Your task to perform on an android device: Set the phone to "Do not disturb". Image 0: 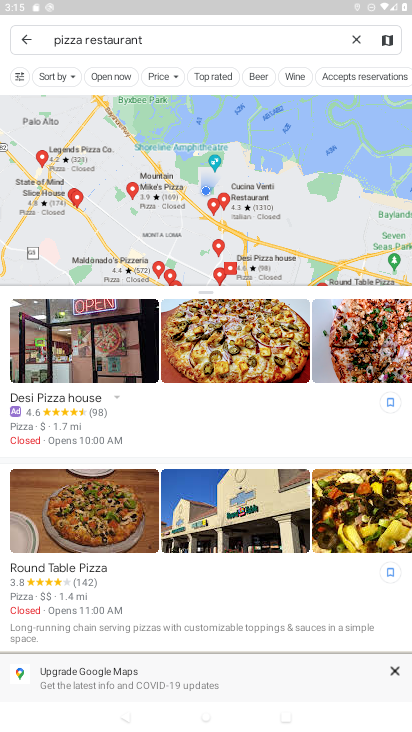
Step 0: press home button
Your task to perform on an android device: Set the phone to "Do not disturb". Image 1: 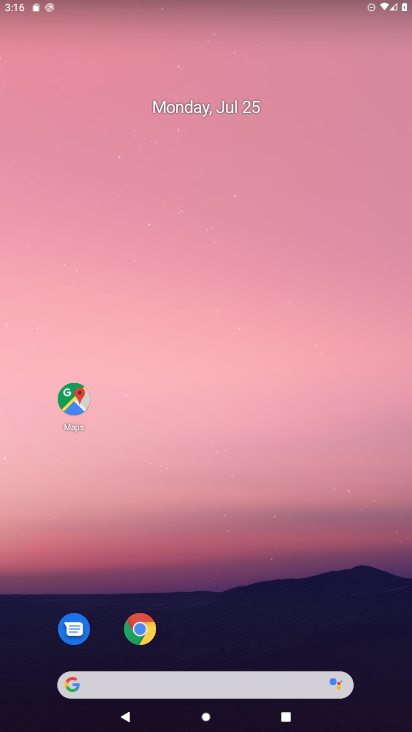
Step 1: drag from (281, 627) to (213, 169)
Your task to perform on an android device: Set the phone to "Do not disturb". Image 2: 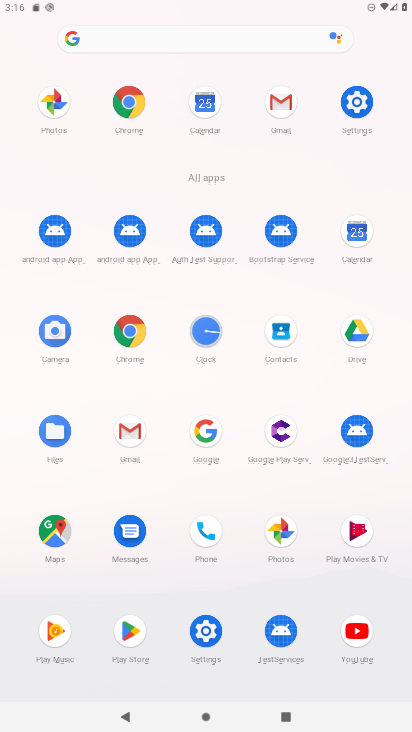
Step 2: click (360, 101)
Your task to perform on an android device: Set the phone to "Do not disturb". Image 3: 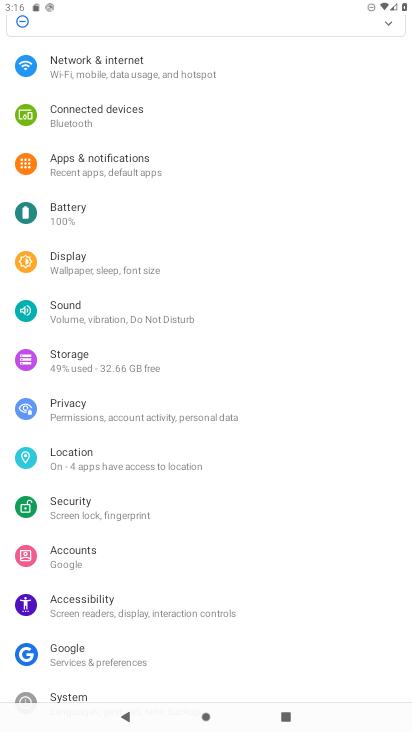
Step 3: click (159, 307)
Your task to perform on an android device: Set the phone to "Do not disturb". Image 4: 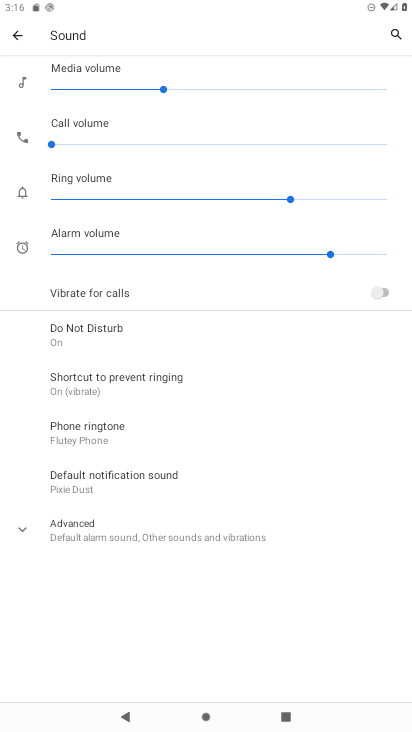
Step 4: click (122, 329)
Your task to perform on an android device: Set the phone to "Do not disturb". Image 5: 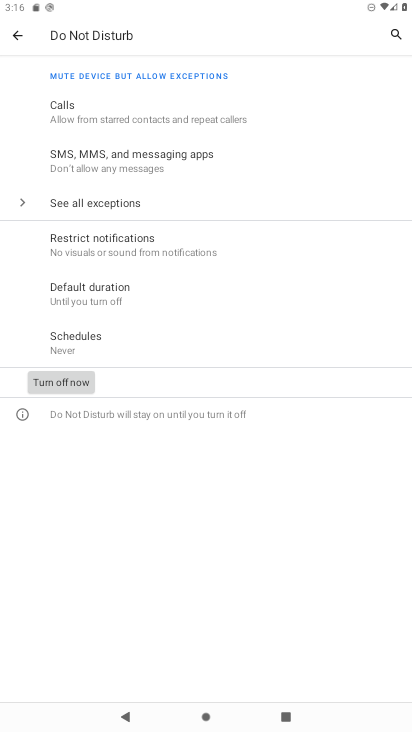
Step 5: task complete